Your task to perform on an android device: Do I have any events tomorrow? Image 0: 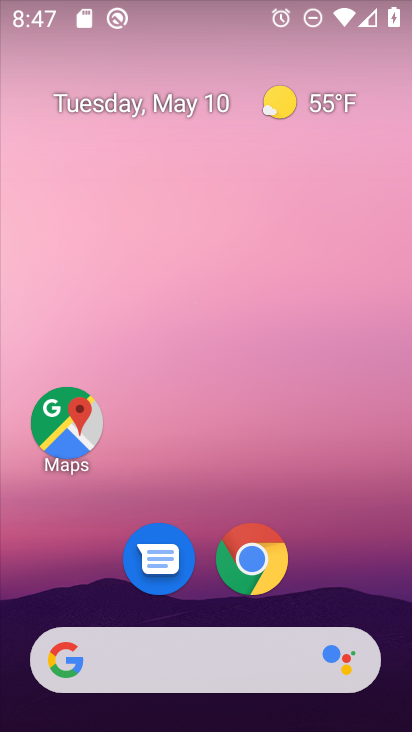
Step 0: drag from (208, 694) to (198, 181)
Your task to perform on an android device: Do I have any events tomorrow? Image 1: 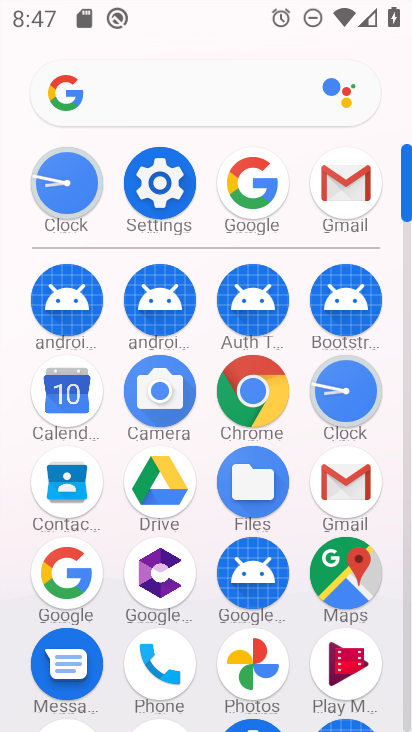
Step 1: click (49, 407)
Your task to perform on an android device: Do I have any events tomorrow? Image 2: 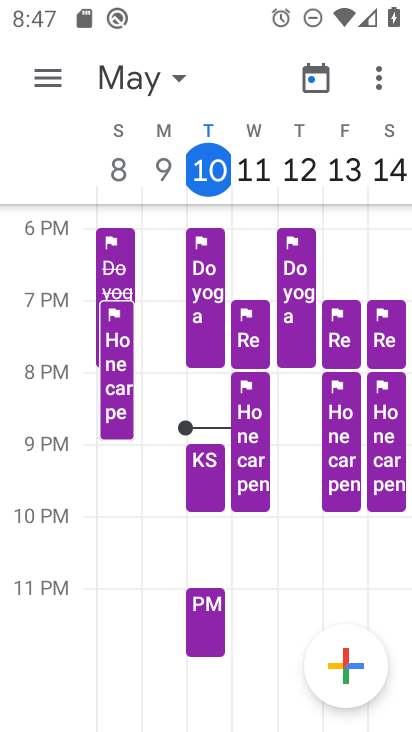
Step 2: click (252, 163)
Your task to perform on an android device: Do I have any events tomorrow? Image 3: 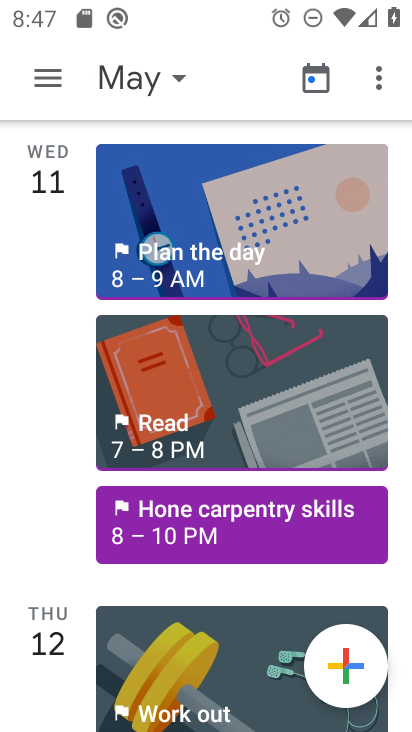
Step 3: task complete